Your task to perform on an android device: Search for "rayovac triple a" on bestbuy.com, select the first entry, and add it to the cart. Image 0: 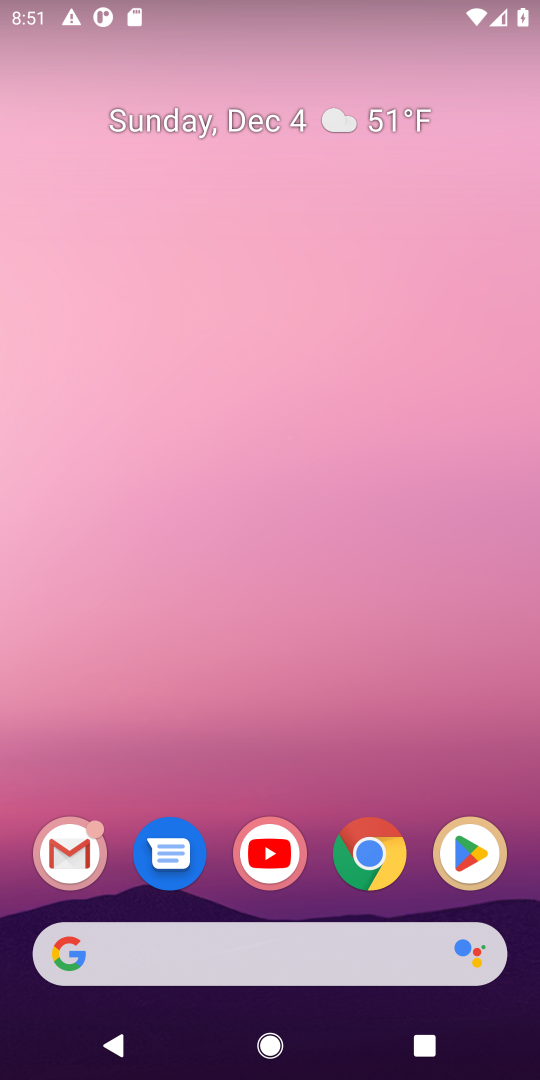
Step 0: task complete